Your task to perform on an android device: Go to calendar. Show me events next week Image 0: 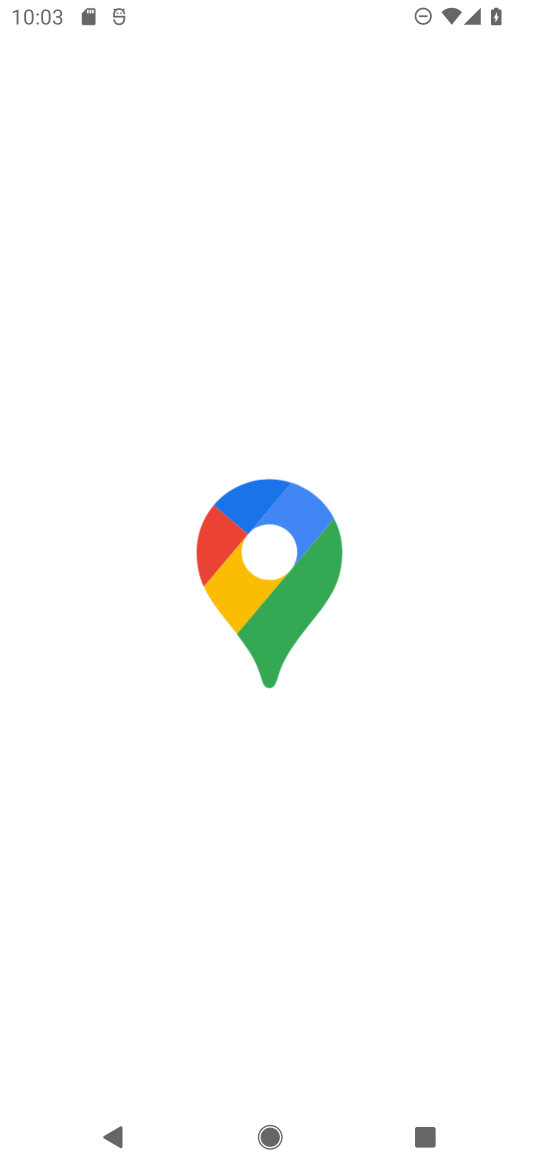
Step 0: press home button
Your task to perform on an android device: Go to calendar. Show me events next week Image 1: 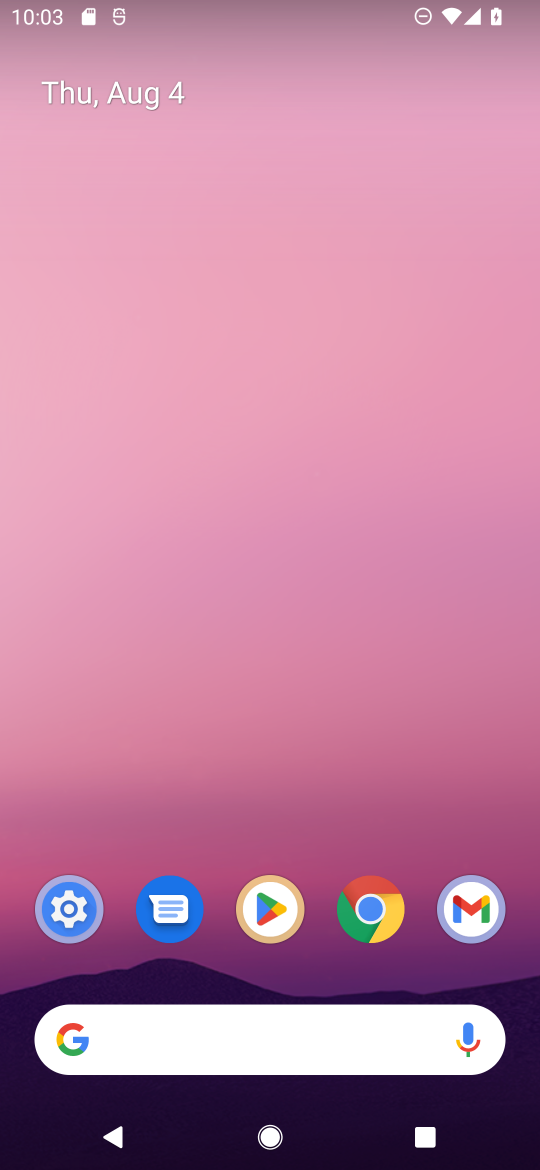
Step 1: drag from (272, 831) to (302, 8)
Your task to perform on an android device: Go to calendar. Show me events next week Image 2: 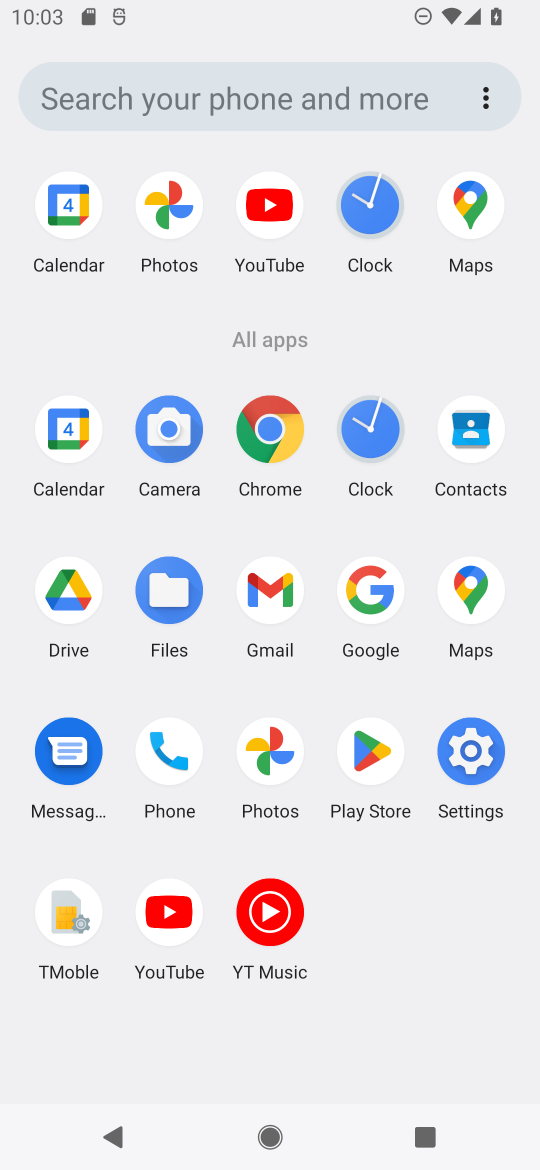
Step 2: click (61, 208)
Your task to perform on an android device: Go to calendar. Show me events next week Image 3: 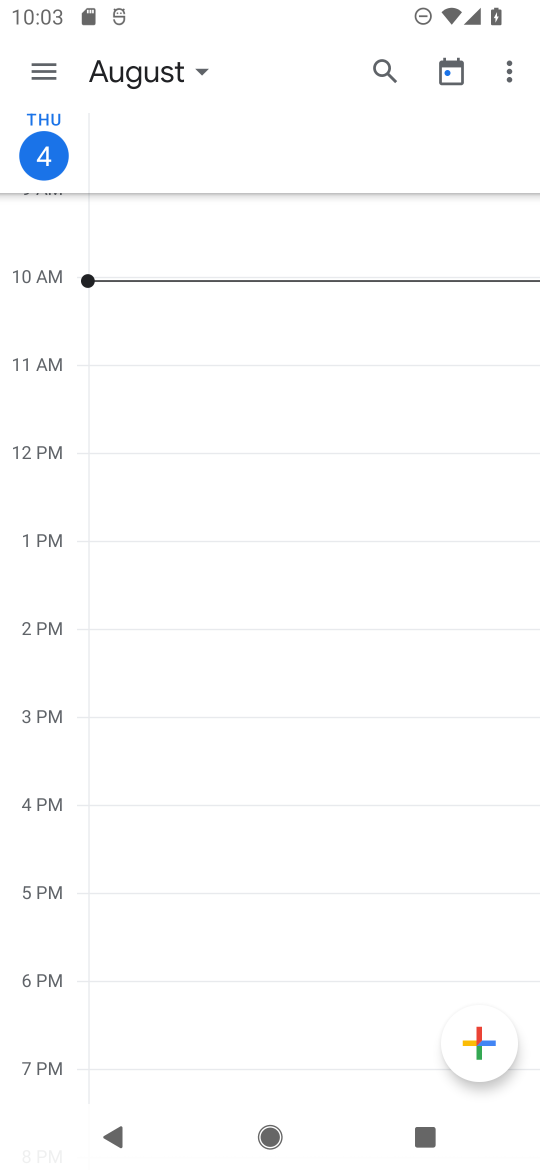
Step 3: click (43, 73)
Your task to perform on an android device: Go to calendar. Show me events next week Image 4: 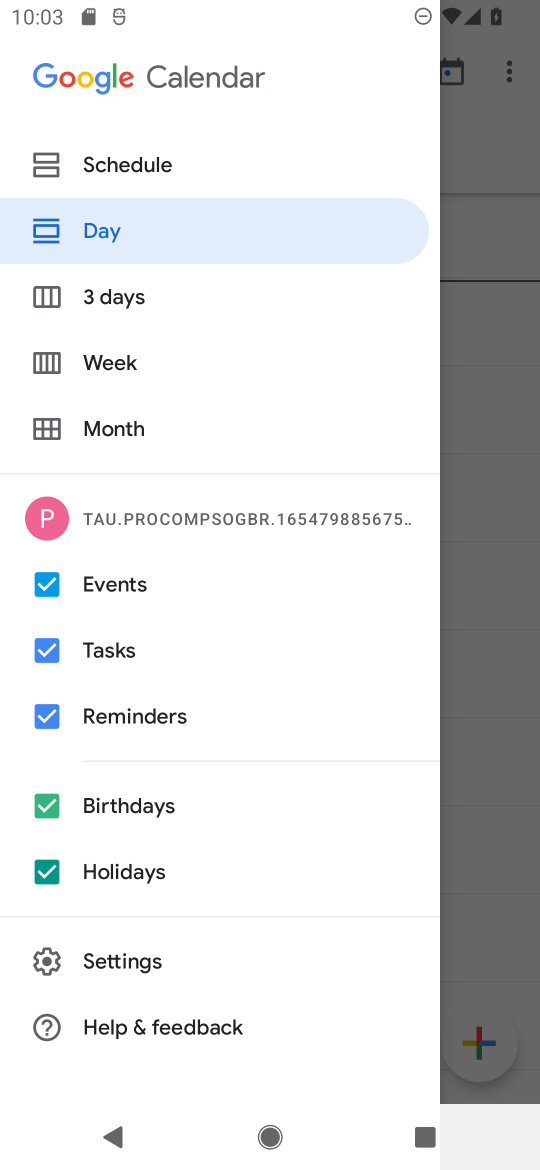
Step 4: click (83, 356)
Your task to perform on an android device: Go to calendar. Show me events next week Image 5: 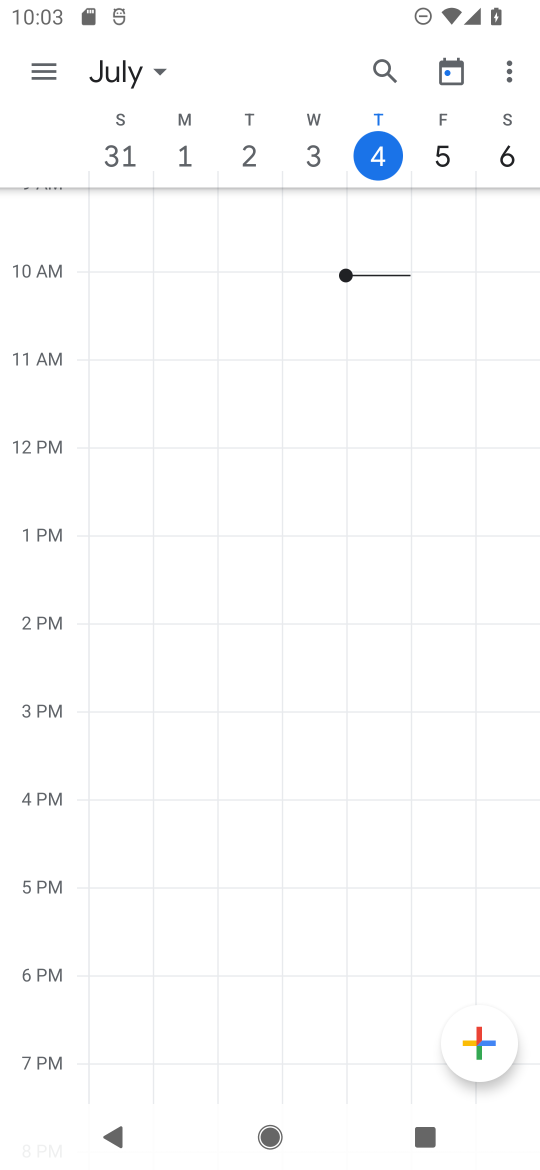
Step 5: drag from (433, 609) to (11, 630)
Your task to perform on an android device: Go to calendar. Show me events next week Image 6: 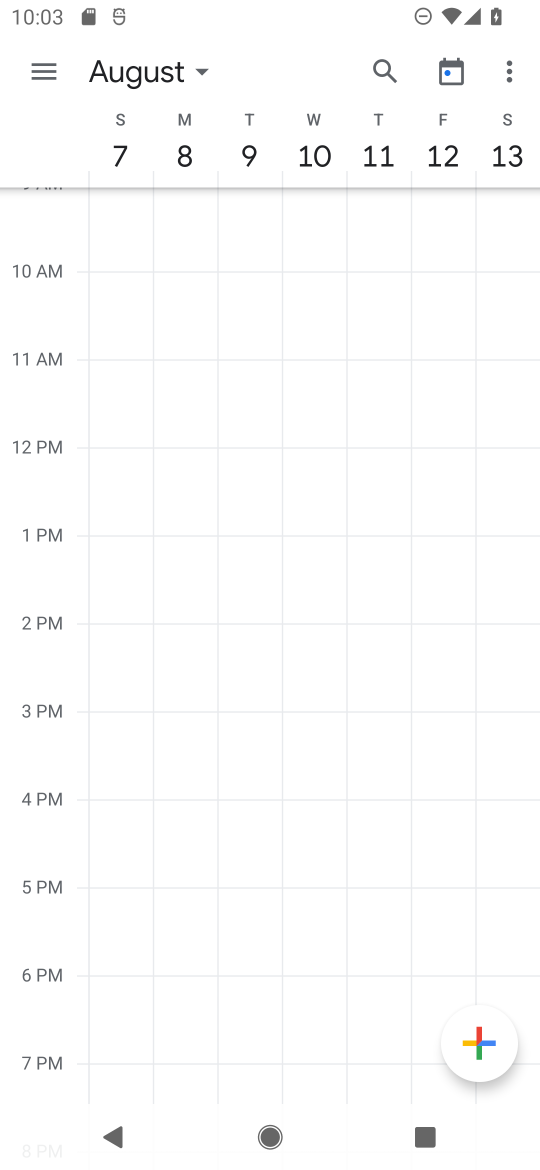
Step 6: click (50, 57)
Your task to perform on an android device: Go to calendar. Show me events next week Image 7: 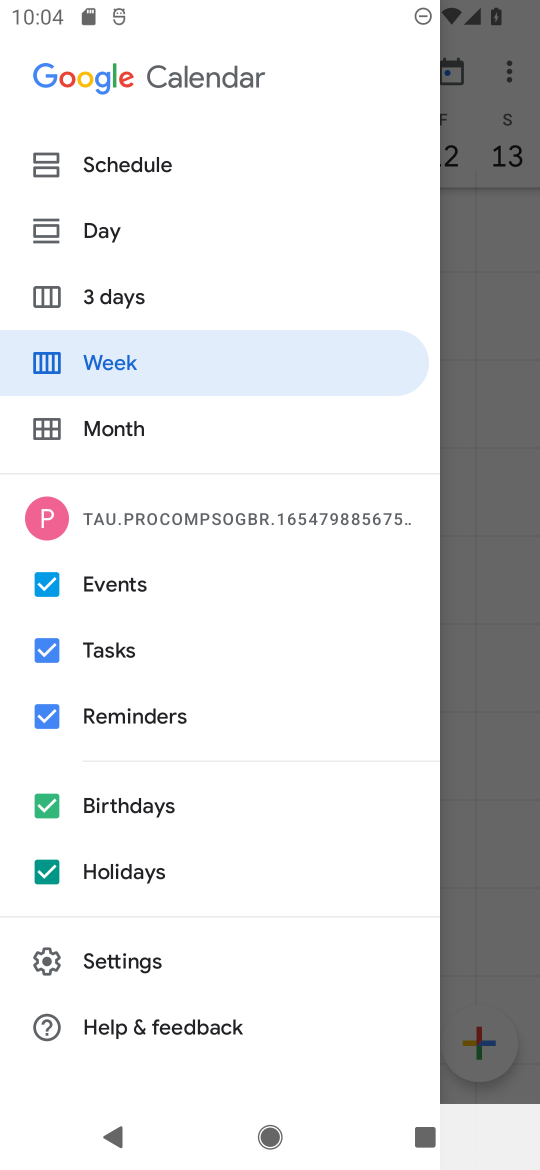
Step 7: click (43, 652)
Your task to perform on an android device: Go to calendar. Show me events next week Image 8: 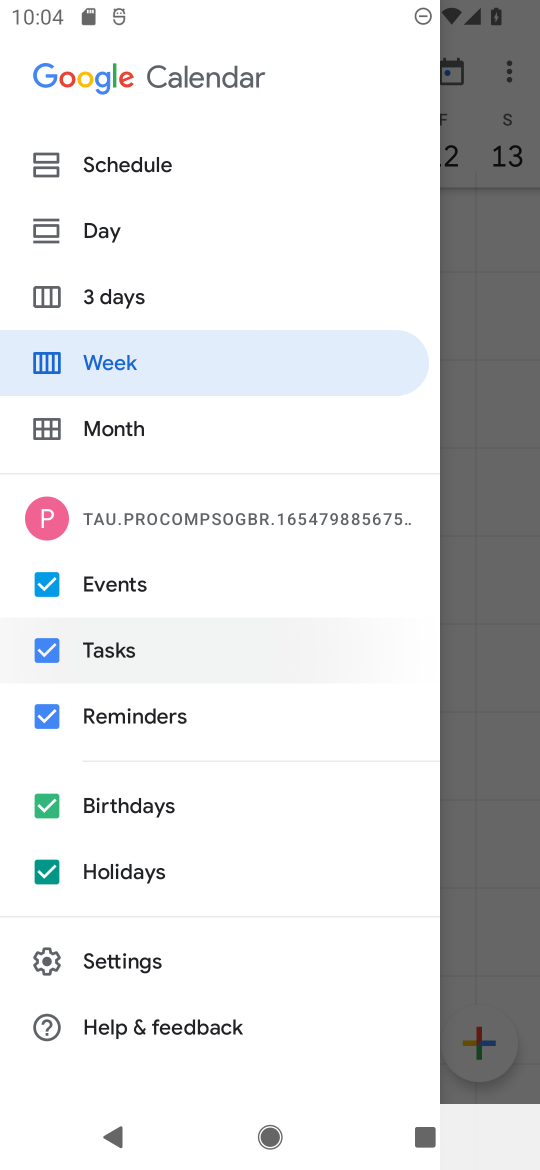
Step 8: click (42, 700)
Your task to perform on an android device: Go to calendar. Show me events next week Image 9: 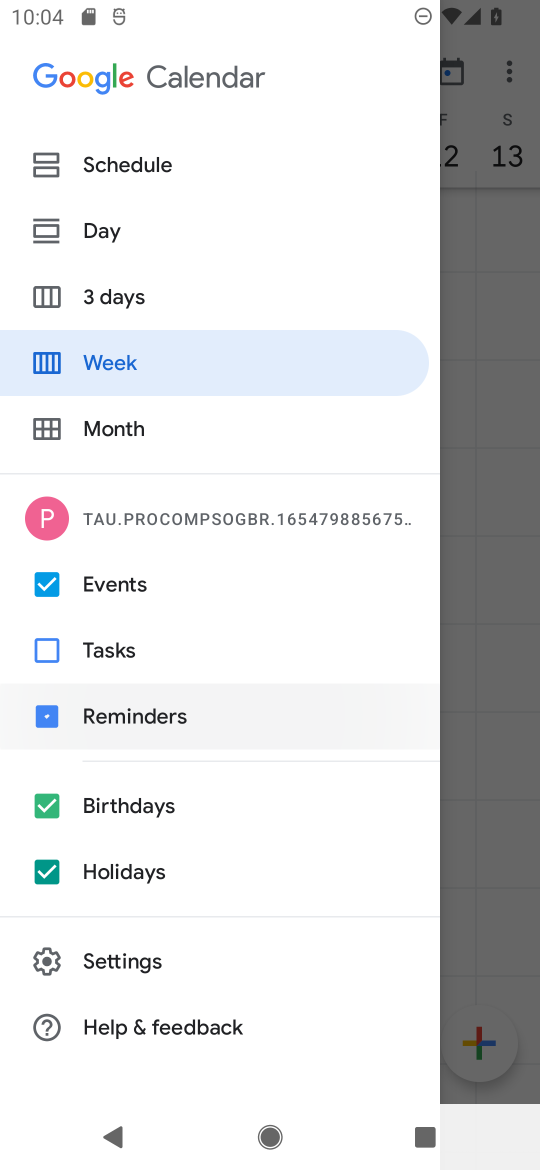
Step 9: click (51, 795)
Your task to perform on an android device: Go to calendar. Show me events next week Image 10: 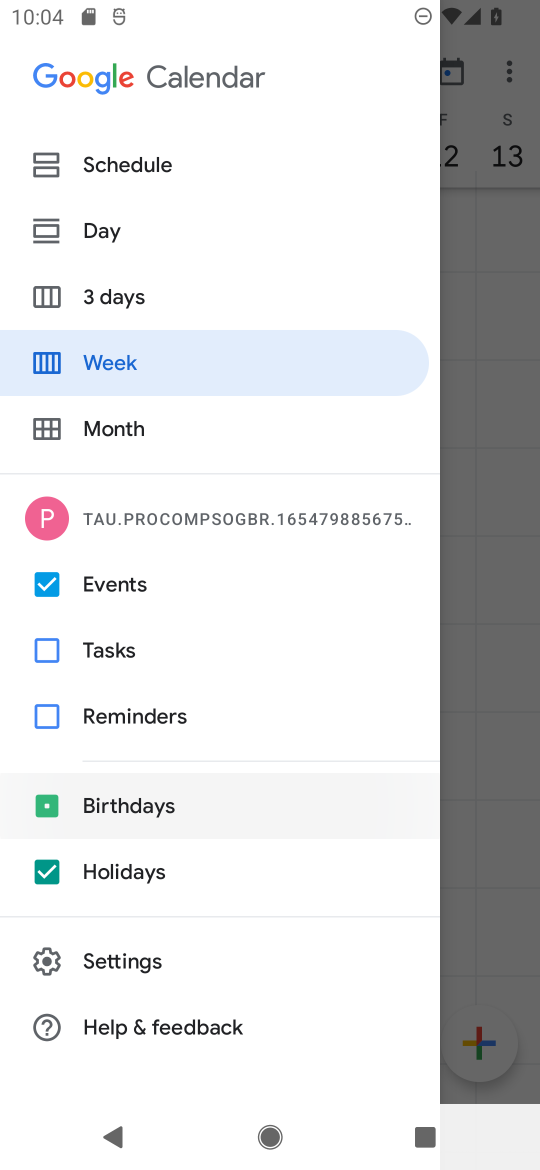
Step 10: click (45, 881)
Your task to perform on an android device: Go to calendar. Show me events next week Image 11: 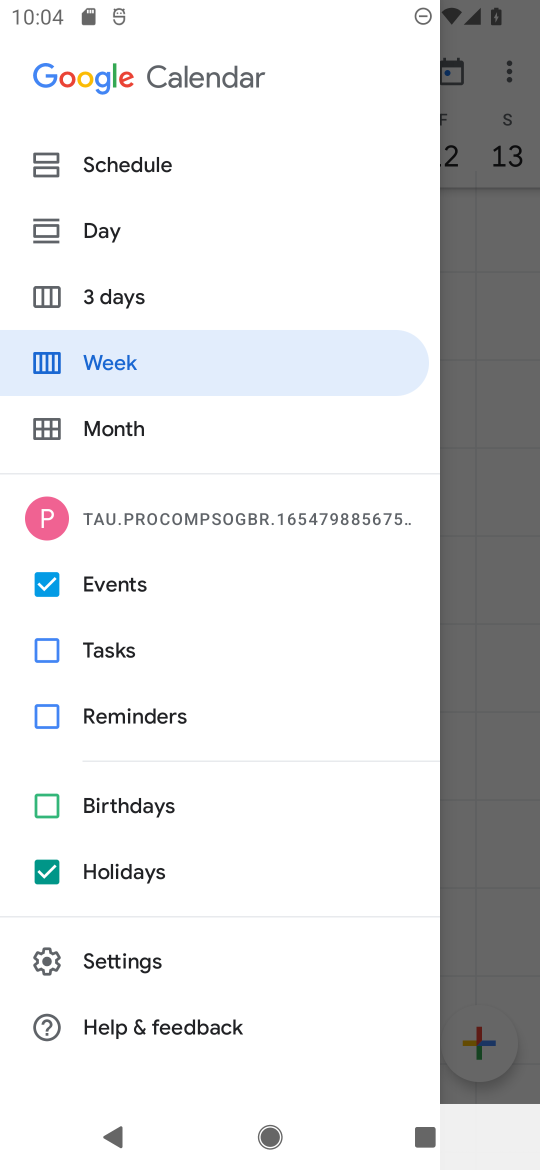
Step 11: click (55, 867)
Your task to perform on an android device: Go to calendar. Show me events next week Image 12: 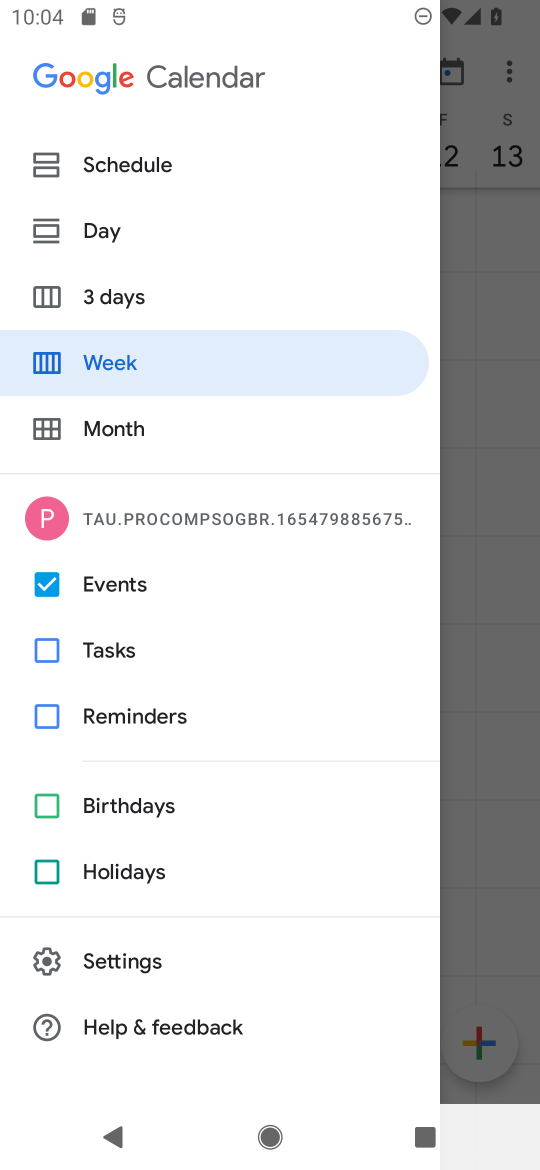
Step 12: click (180, 368)
Your task to perform on an android device: Go to calendar. Show me events next week Image 13: 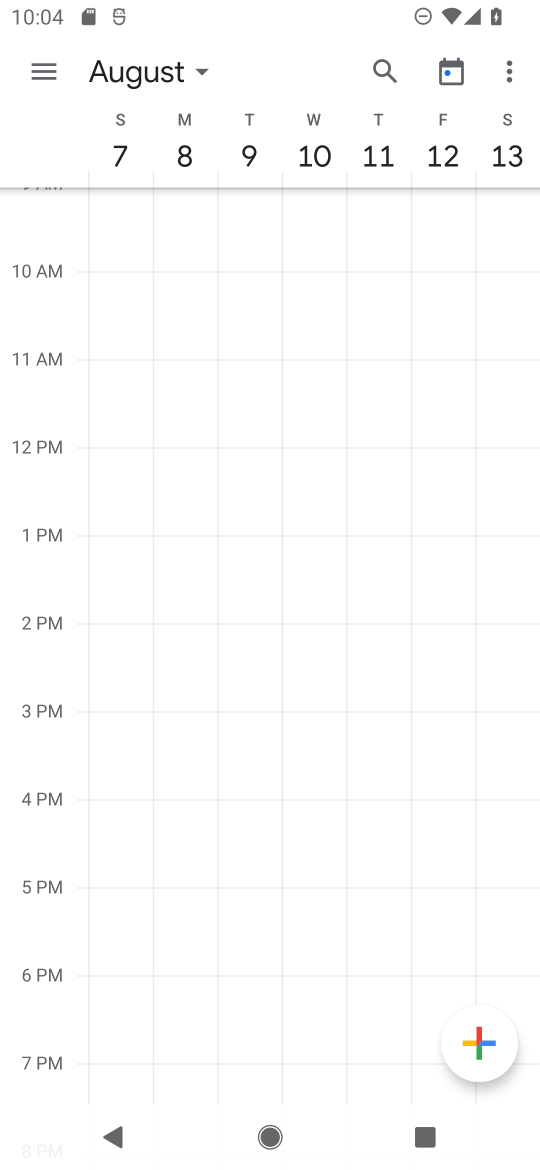
Step 13: task complete